Your task to perform on an android device: Open the phone app and click the voicemail tab. Image 0: 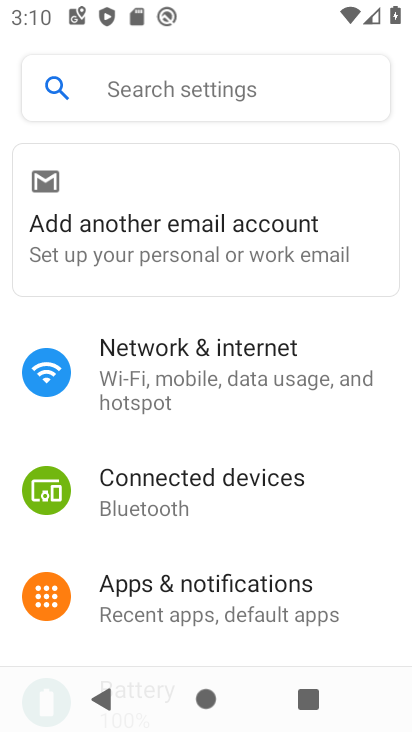
Step 0: press home button
Your task to perform on an android device: Open the phone app and click the voicemail tab. Image 1: 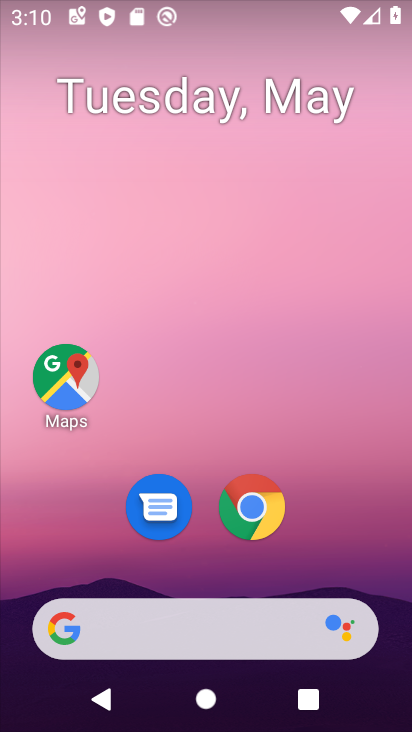
Step 1: drag from (223, 566) to (221, 15)
Your task to perform on an android device: Open the phone app and click the voicemail tab. Image 2: 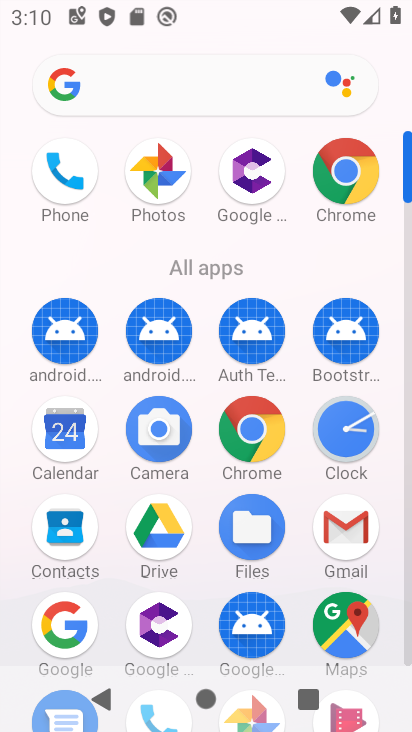
Step 2: drag from (201, 658) to (210, 203)
Your task to perform on an android device: Open the phone app and click the voicemail tab. Image 3: 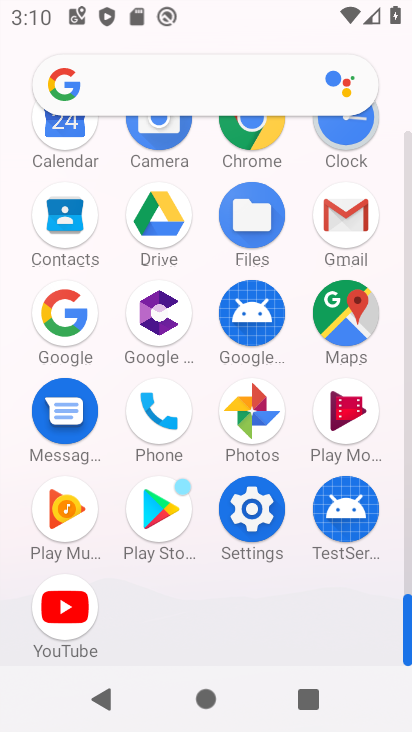
Step 3: click (148, 420)
Your task to perform on an android device: Open the phone app and click the voicemail tab. Image 4: 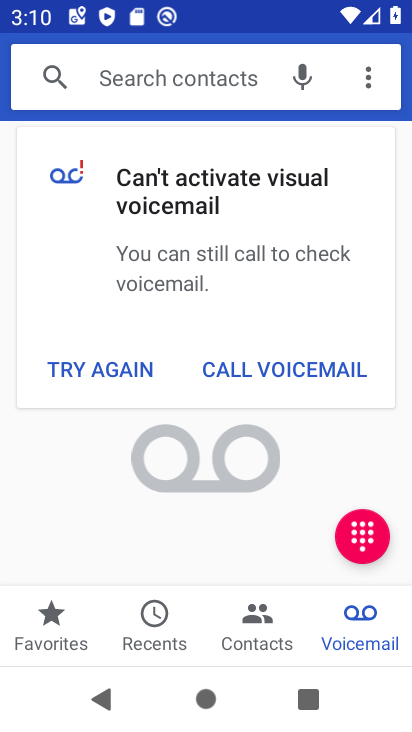
Step 4: task complete